Your task to perform on an android device: open wifi settings Image 0: 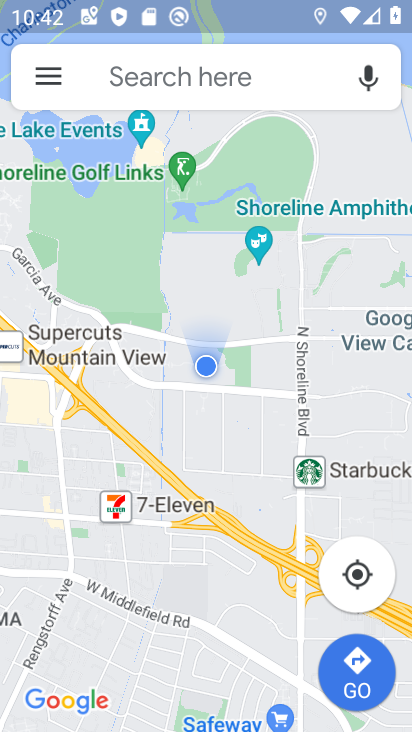
Step 0: press home button
Your task to perform on an android device: open wifi settings Image 1: 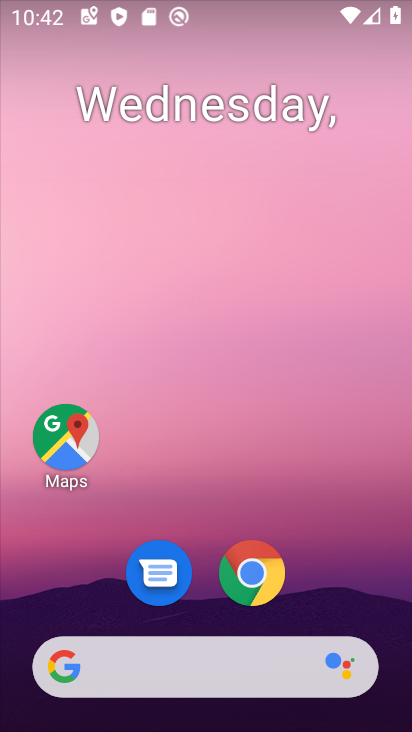
Step 1: drag from (246, 630) to (328, 31)
Your task to perform on an android device: open wifi settings Image 2: 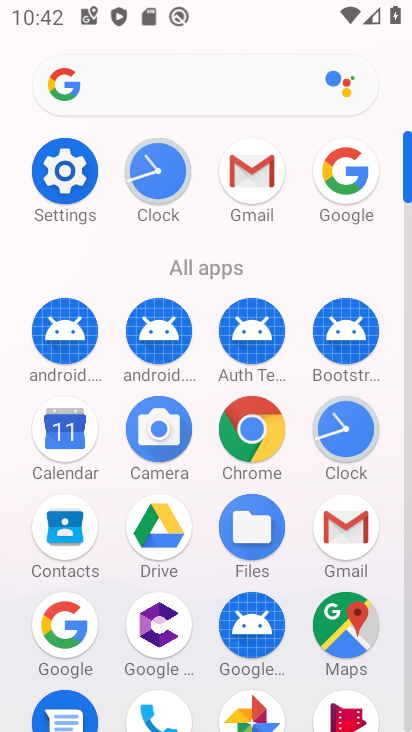
Step 2: click (60, 172)
Your task to perform on an android device: open wifi settings Image 3: 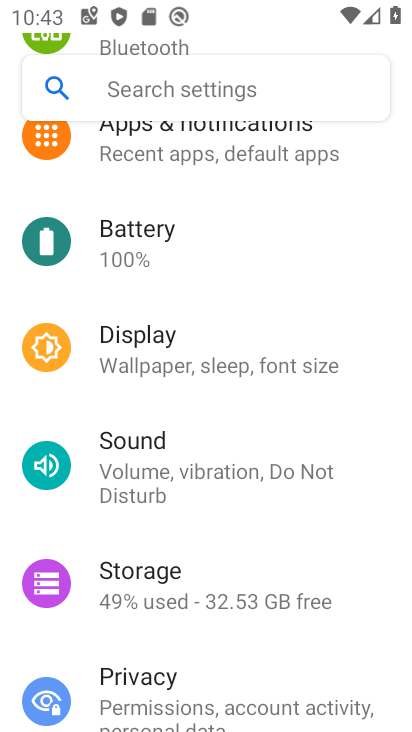
Step 3: drag from (124, 179) to (147, 535)
Your task to perform on an android device: open wifi settings Image 4: 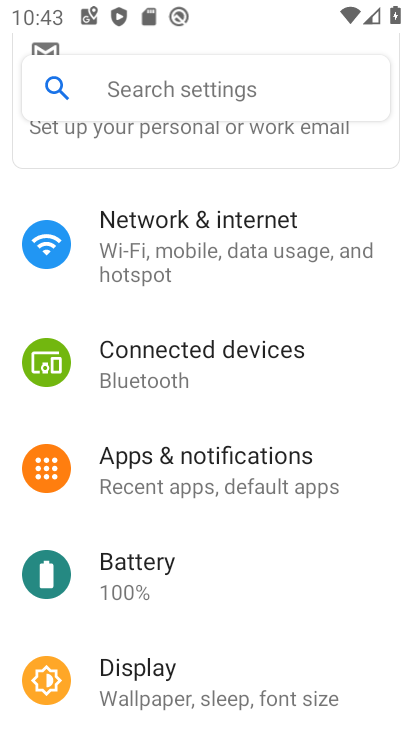
Step 4: drag from (251, 189) to (254, 520)
Your task to perform on an android device: open wifi settings Image 5: 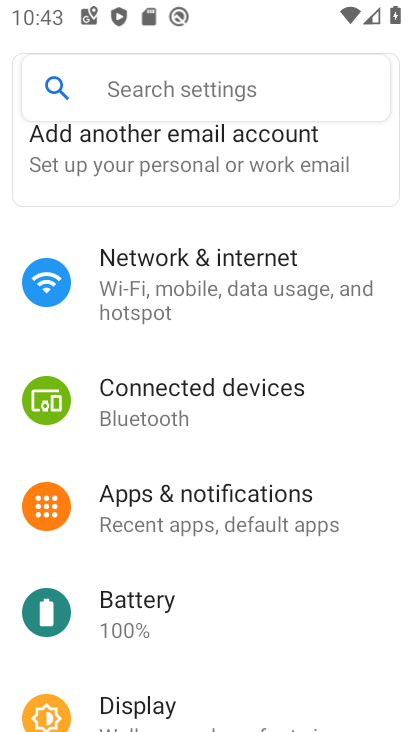
Step 5: click (161, 252)
Your task to perform on an android device: open wifi settings Image 6: 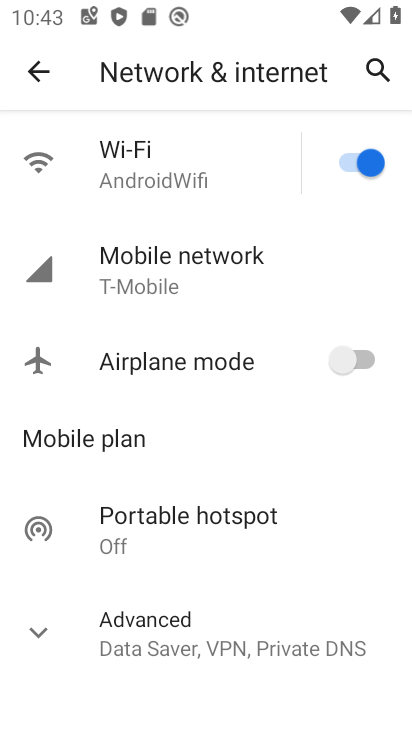
Step 6: click (189, 172)
Your task to perform on an android device: open wifi settings Image 7: 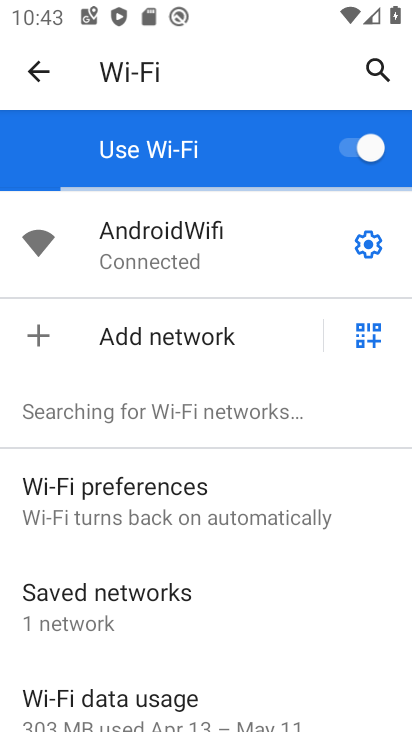
Step 7: click (370, 251)
Your task to perform on an android device: open wifi settings Image 8: 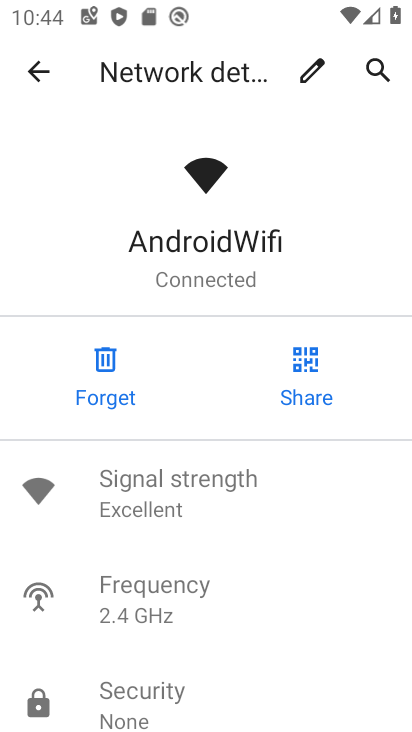
Step 8: task complete